Your task to perform on an android device: choose inbox layout in the gmail app Image 0: 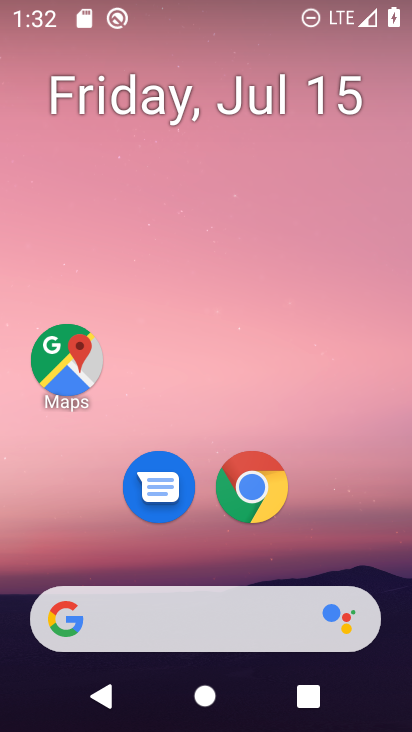
Step 0: drag from (140, 631) to (238, 68)
Your task to perform on an android device: choose inbox layout in the gmail app Image 1: 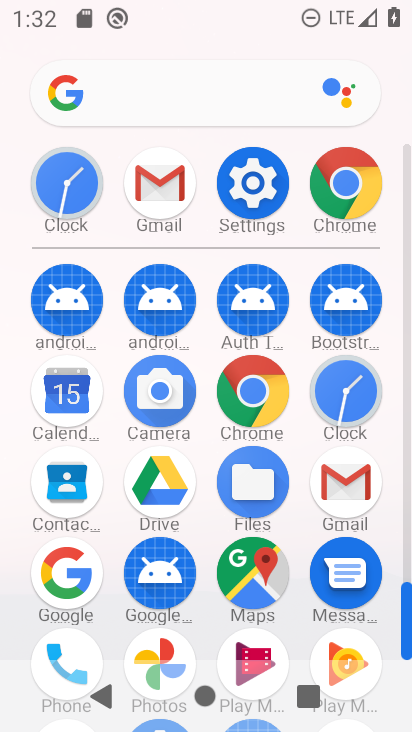
Step 1: click (339, 462)
Your task to perform on an android device: choose inbox layout in the gmail app Image 2: 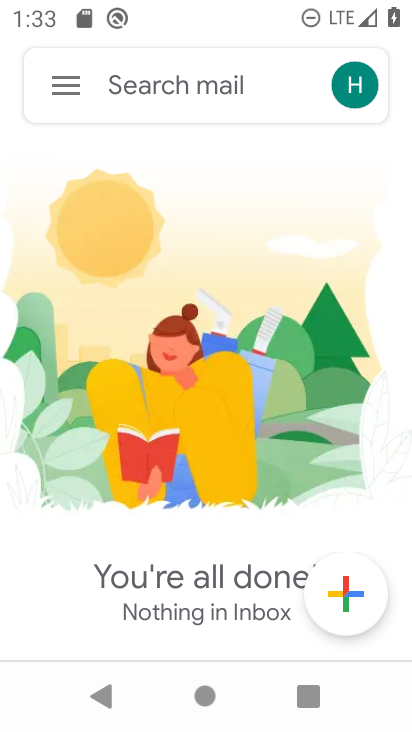
Step 2: click (73, 100)
Your task to perform on an android device: choose inbox layout in the gmail app Image 3: 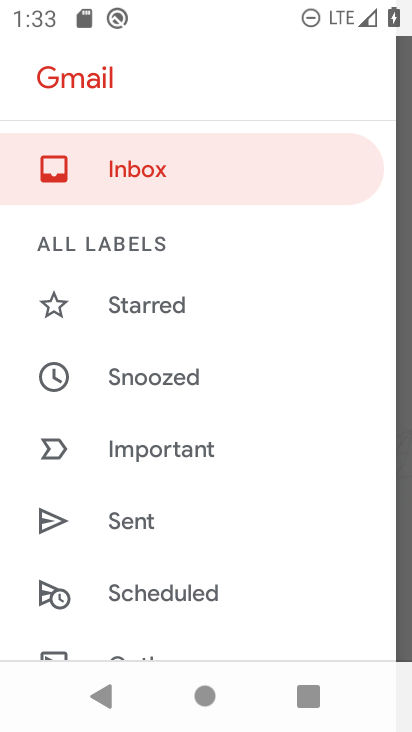
Step 3: drag from (105, 481) to (145, 252)
Your task to perform on an android device: choose inbox layout in the gmail app Image 4: 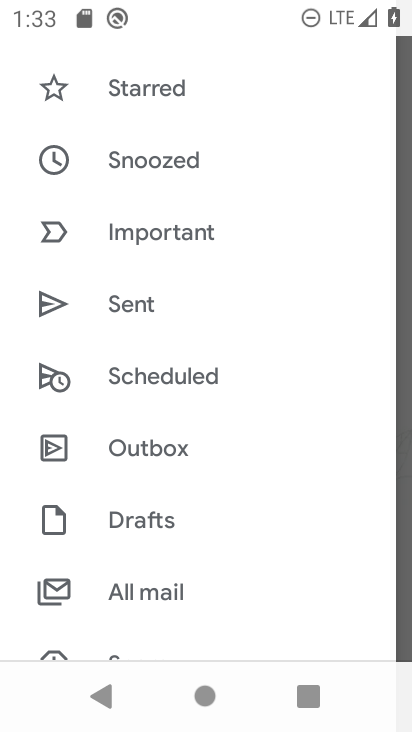
Step 4: drag from (163, 509) to (367, 21)
Your task to perform on an android device: choose inbox layout in the gmail app Image 5: 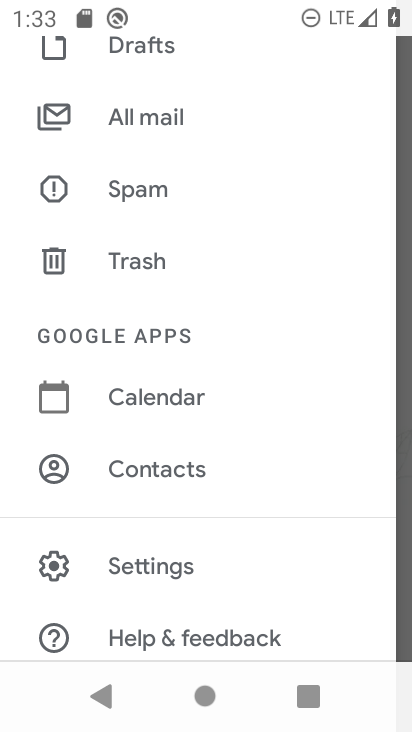
Step 5: click (125, 563)
Your task to perform on an android device: choose inbox layout in the gmail app Image 6: 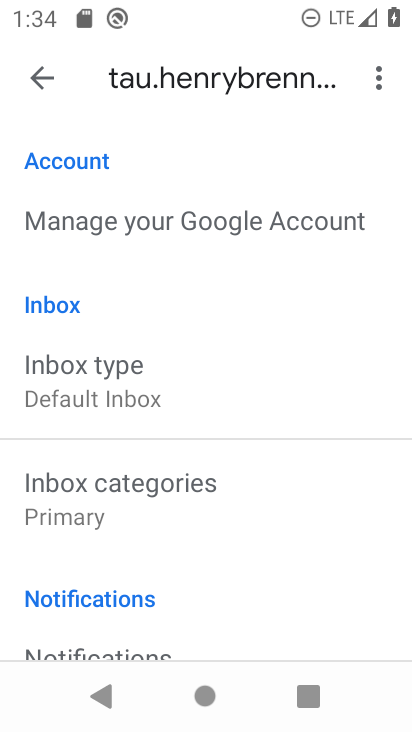
Step 6: task complete